Your task to perform on an android device: Search for pizza restaurants on Maps Image 0: 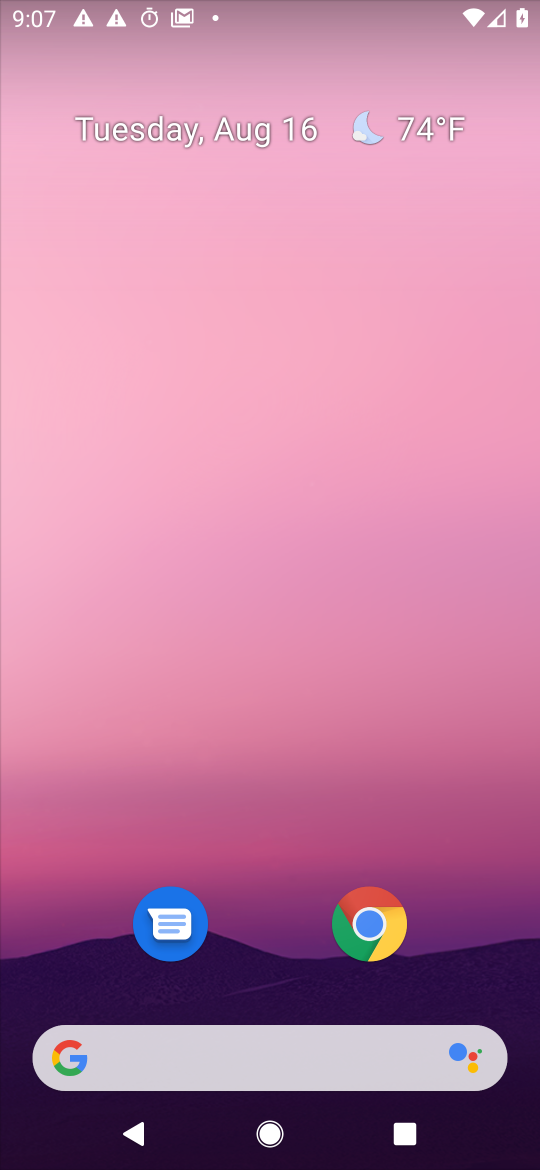
Step 0: drag from (214, 988) to (319, 124)
Your task to perform on an android device: Search for pizza restaurants on Maps Image 1: 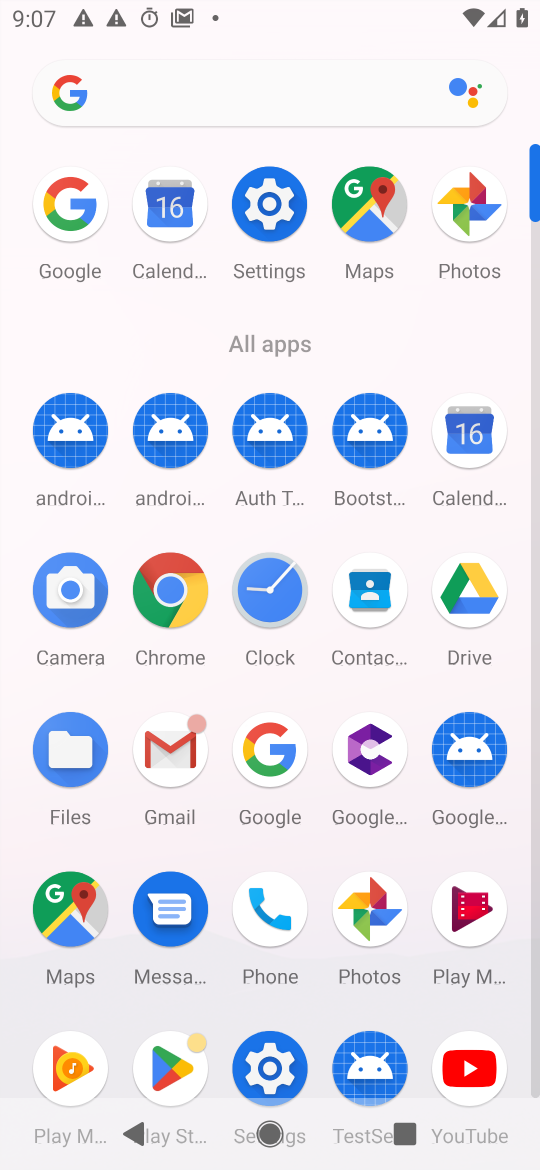
Step 1: click (373, 213)
Your task to perform on an android device: Search for pizza restaurants on Maps Image 2: 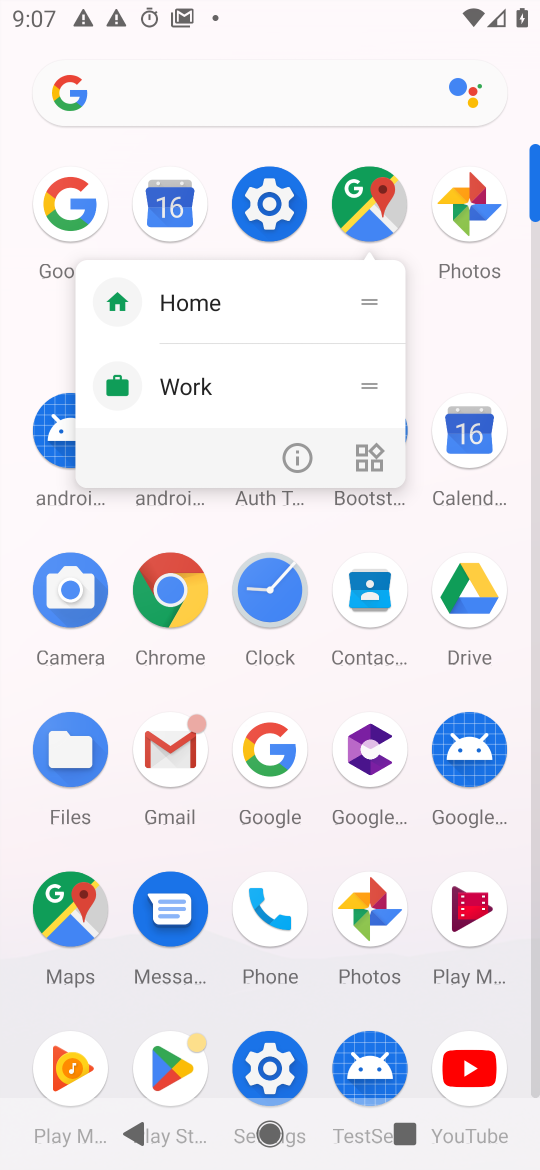
Step 2: click (373, 213)
Your task to perform on an android device: Search for pizza restaurants on Maps Image 3: 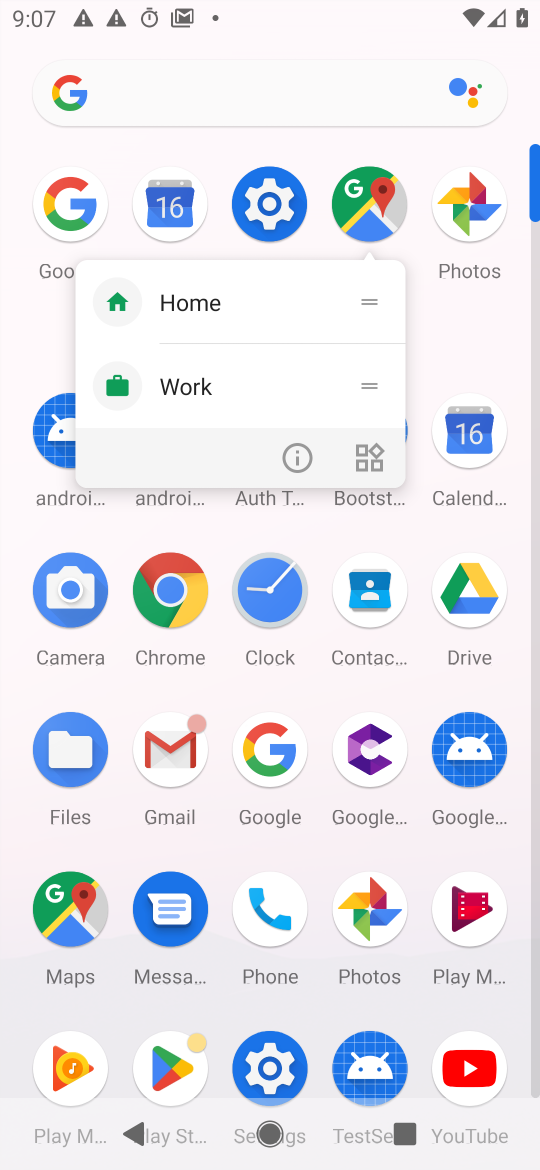
Step 3: click (373, 213)
Your task to perform on an android device: Search for pizza restaurants on Maps Image 4: 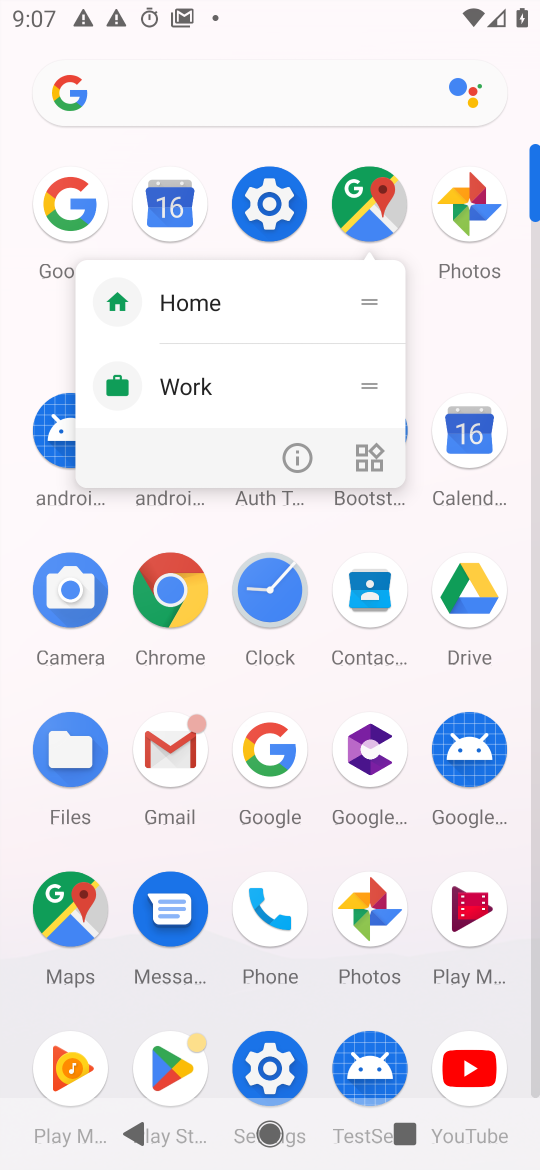
Step 4: click (379, 201)
Your task to perform on an android device: Search for pizza restaurants on Maps Image 5: 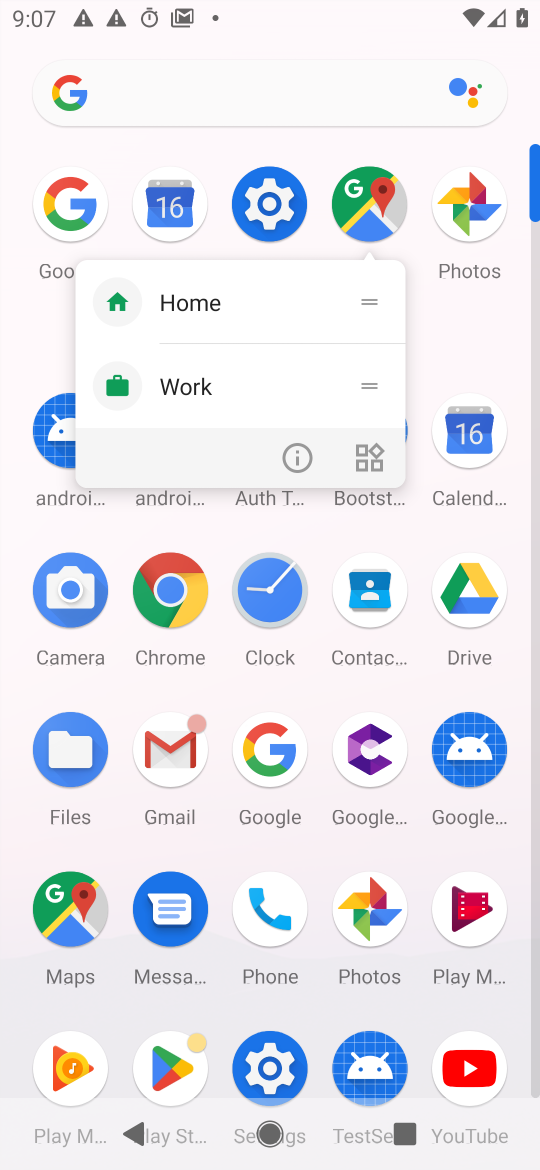
Step 5: click (369, 215)
Your task to perform on an android device: Search for pizza restaurants on Maps Image 6: 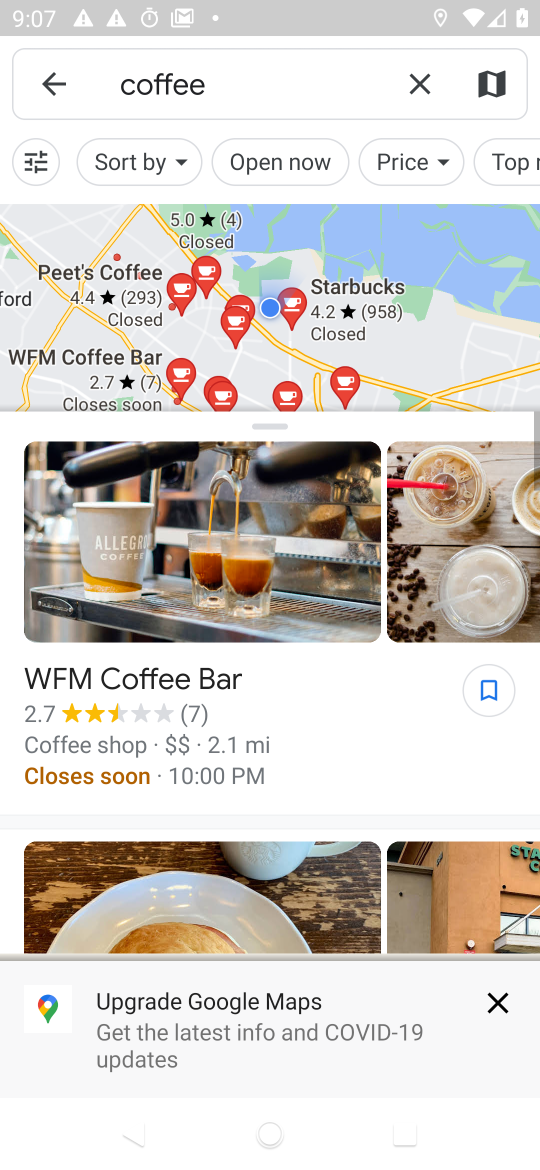
Step 6: click (421, 86)
Your task to perform on an android device: Search for pizza restaurants on Maps Image 7: 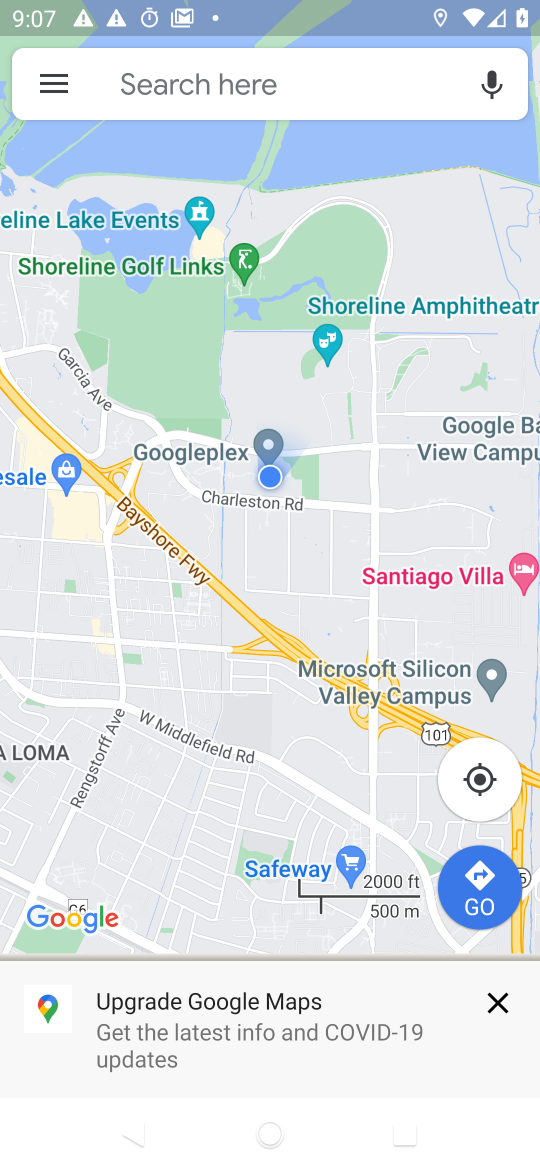
Step 7: click (246, 73)
Your task to perform on an android device: Search for pizza restaurants on Maps Image 8: 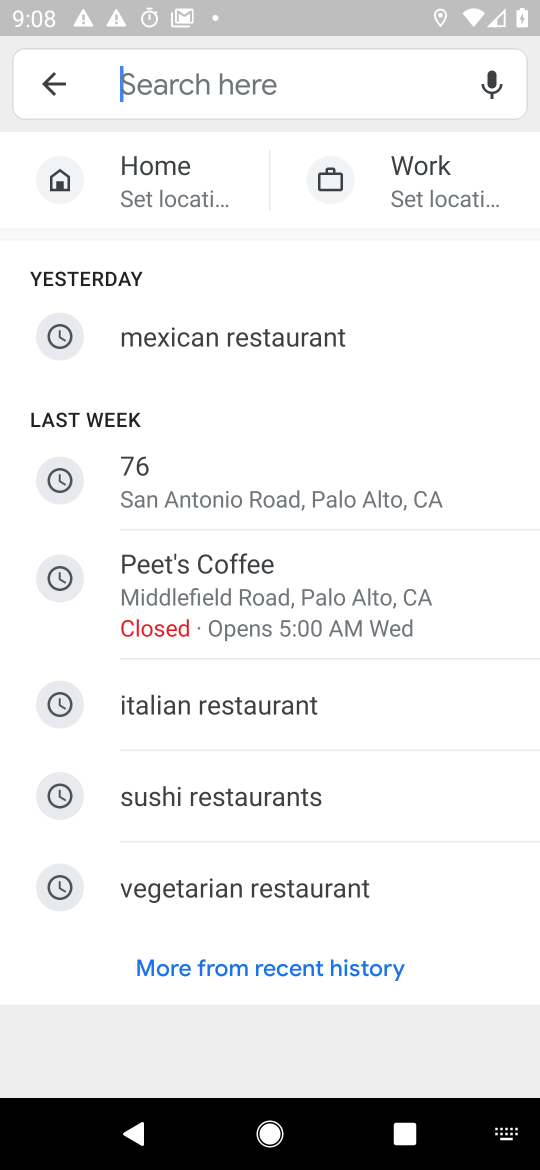
Step 8: click (174, 101)
Your task to perform on an android device: Search for pizza restaurants on Maps Image 9: 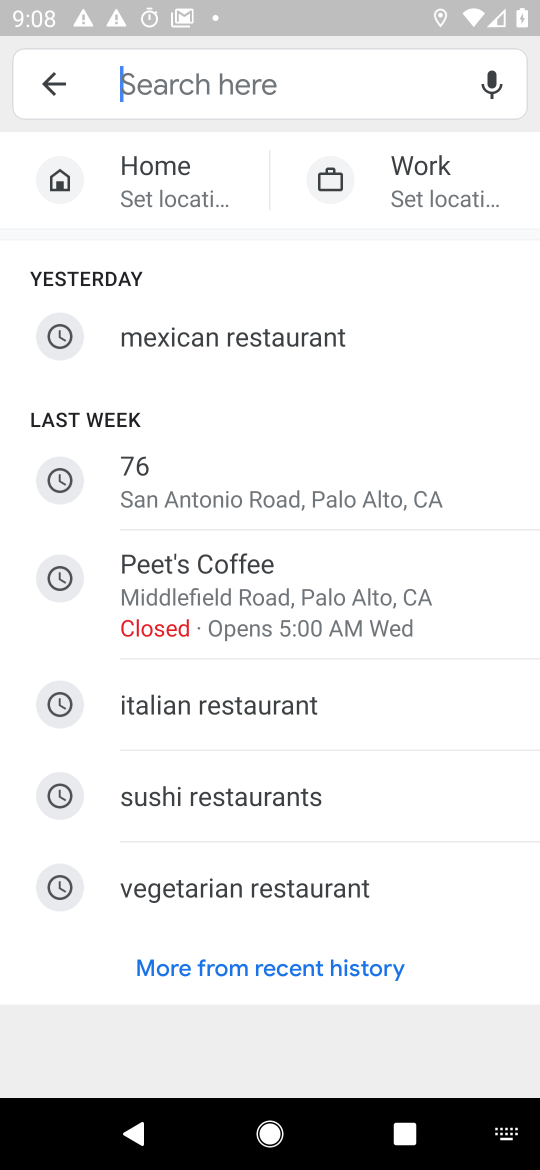
Step 9: type "pizza "
Your task to perform on an android device: Search for pizza restaurants on Maps Image 10: 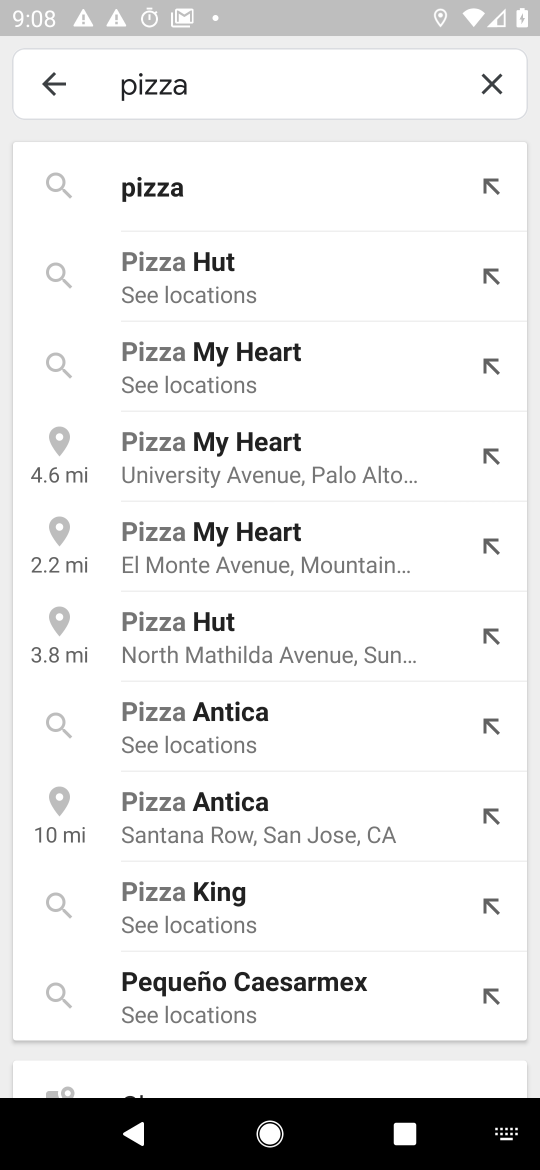
Step 10: type " restaurants"
Your task to perform on an android device: Search for pizza restaurants on Maps Image 11: 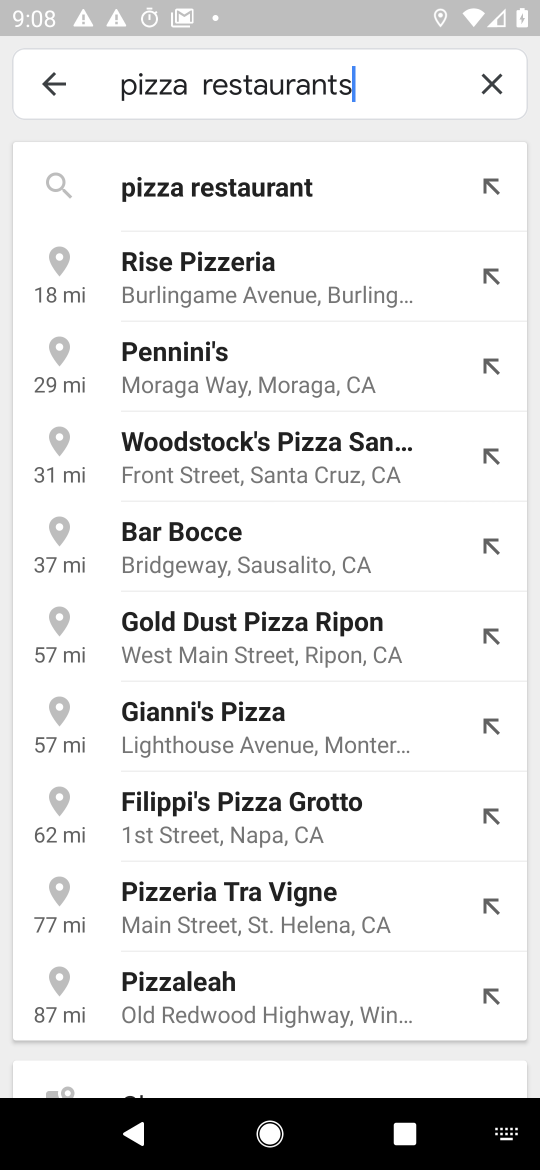
Step 11: click (238, 183)
Your task to perform on an android device: Search for pizza restaurants on Maps Image 12: 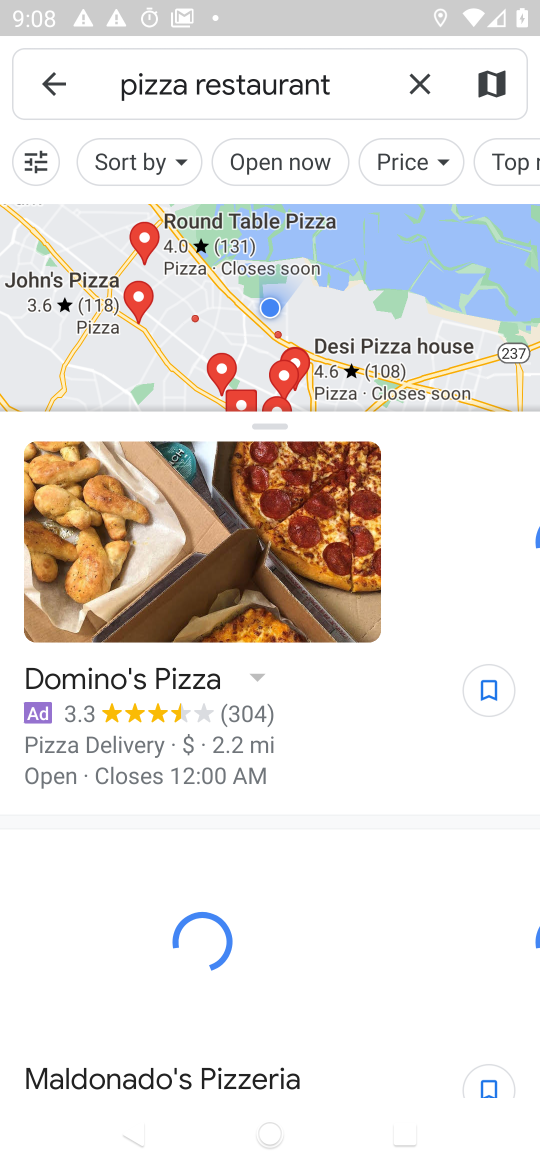
Step 12: task complete